Your task to perform on an android device: turn off priority inbox in the gmail app Image 0: 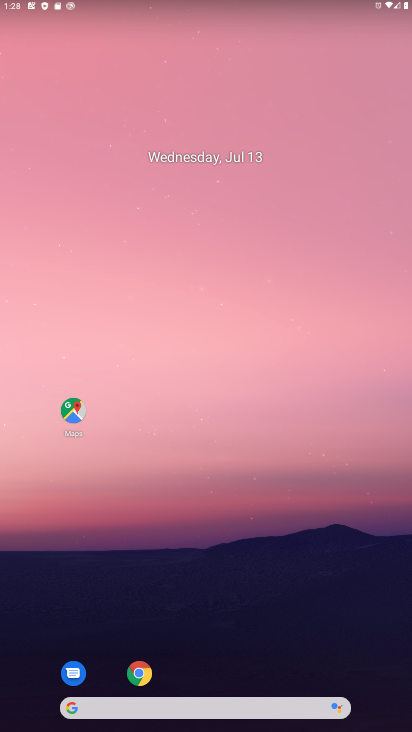
Step 0: drag from (238, 511) to (256, 121)
Your task to perform on an android device: turn off priority inbox in the gmail app Image 1: 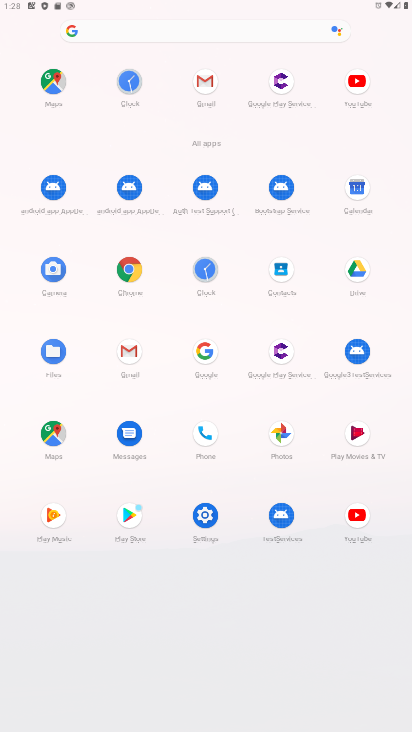
Step 1: click (204, 85)
Your task to perform on an android device: turn off priority inbox in the gmail app Image 2: 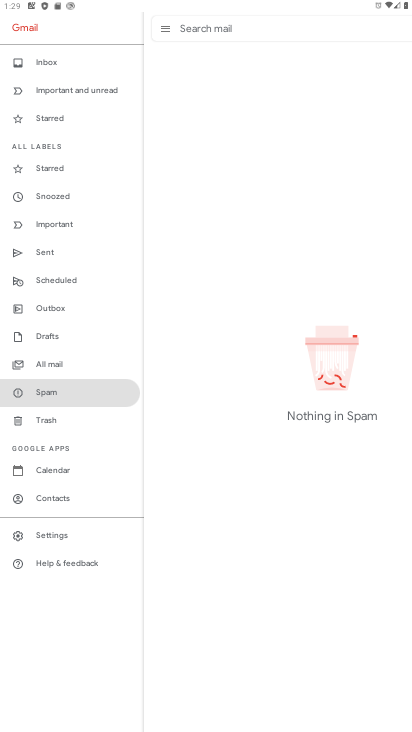
Step 2: click (51, 532)
Your task to perform on an android device: turn off priority inbox in the gmail app Image 3: 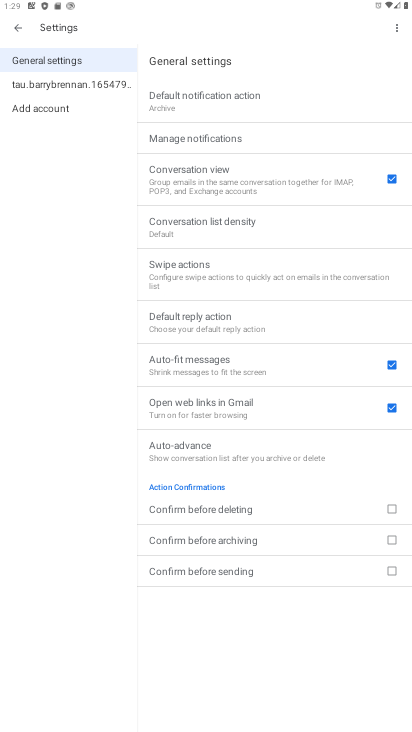
Step 3: click (55, 83)
Your task to perform on an android device: turn off priority inbox in the gmail app Image 4: 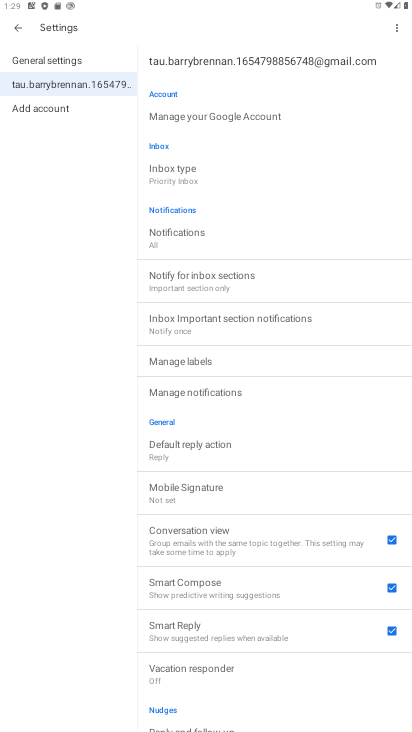
Step 4: click (174, 175)
Your task to perform on an android device: turn off priority inbox in the gmail app Image 5: 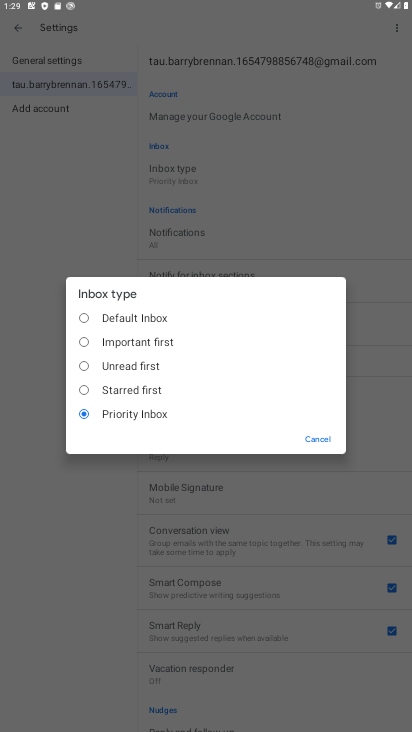
Step 5: click (85, 315)
Your task to perform on an android device: turn off priority inbox in the gmail app Image 6: 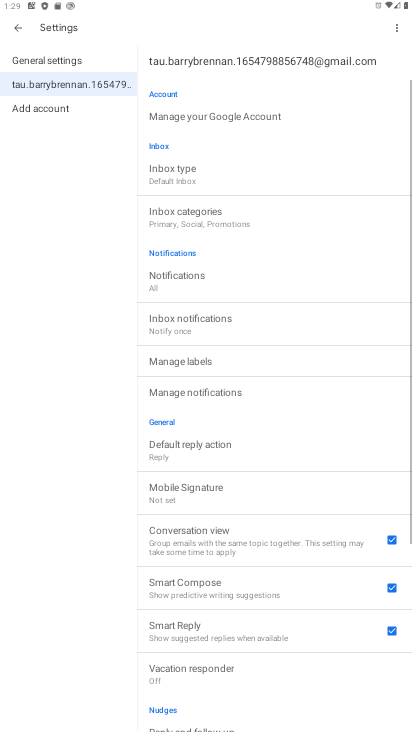
Step 6: task complete